Your task to perform on an android device: Is it going to rain today? Image 0: 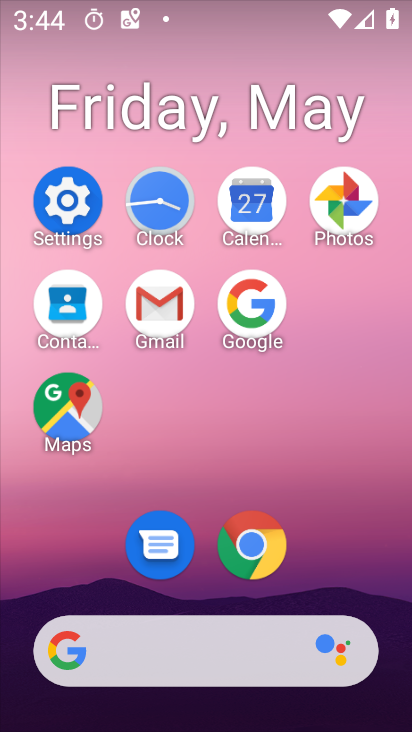
Step 0: click (242, 310)
Your task to perform on an android device: Is it going to rain today? Image 1: 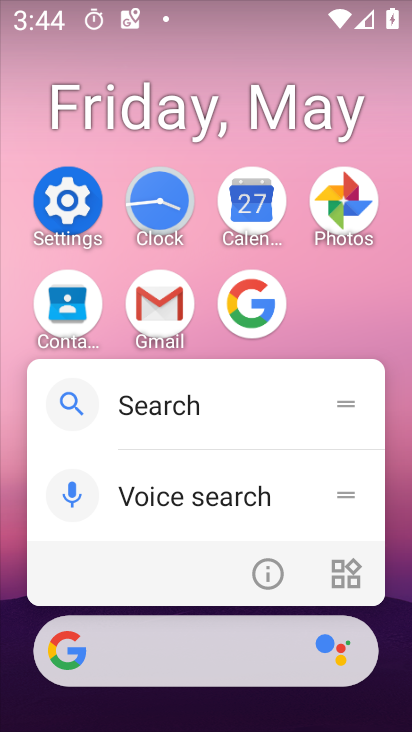
Step 1: click (242, 310)
Your task to perform on an android device: Is it going to rain today? Image 2: 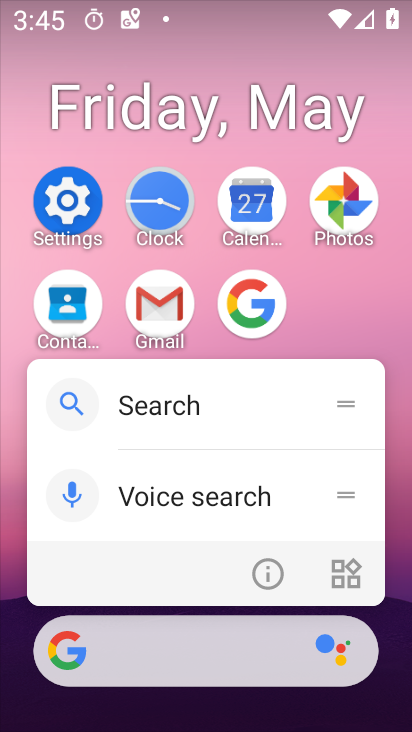
Step 2: click (265, 297)
Your task to perform on an android device: Is it going to rain today? Image 3: 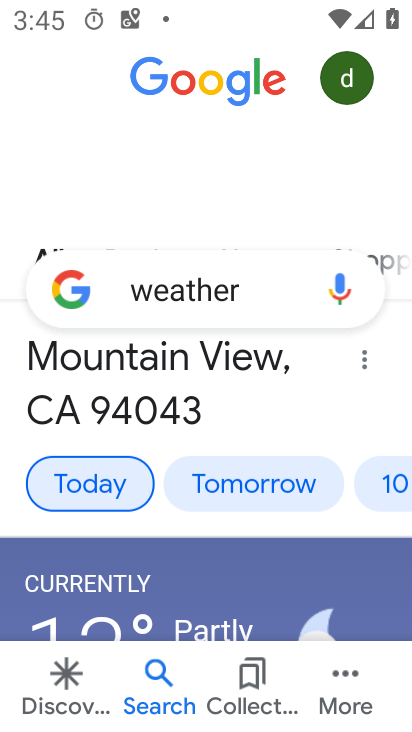
Step 3: task complete